Your task to perform on an android device: read, delete, or share a saved page in the chrome app Image 0: 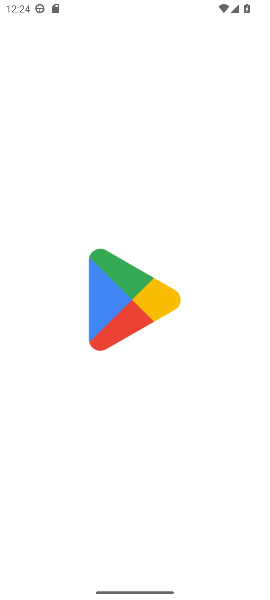
Step 0: press home button
Your task to perform on an android device: read, delete, or share a saved page in the chrome app Image 1: 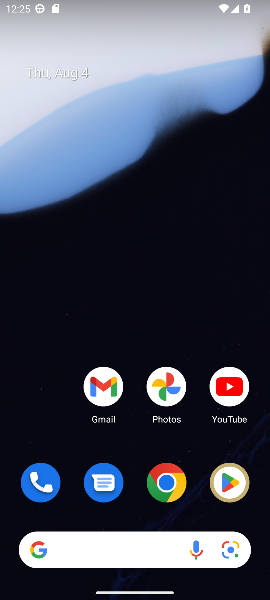
Step 1: click (180, 490)
Your task to perform on an android device: read, delete, or share a saved page in the chrome app Image 2: 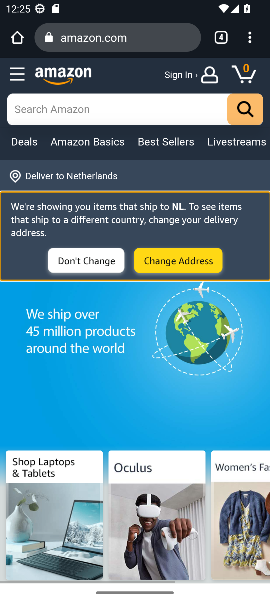
Step 2: click (244, 41)
Your task to perform on an android device: read, delete, or share a saved page in the chrome app Image 3: 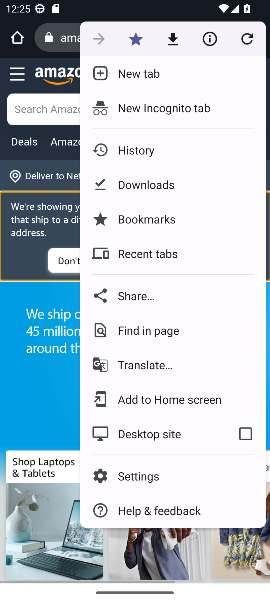
Step 3: click (163, 195)
Your task to perform on an android device: read, delete, or share a saved page in the chrome app Image 4: 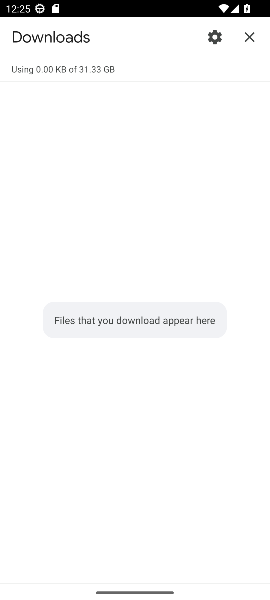
Step 4: task complete